Your task to perform on an android device: delete browsing data in the chrome app Image 0: 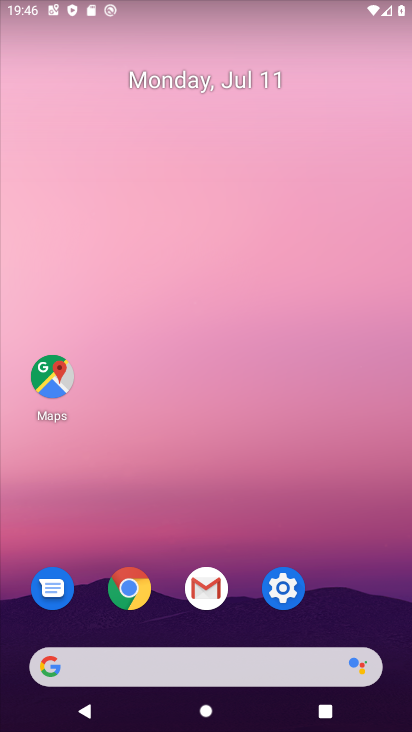
Step 0: click (147, 589)
Your task to perform on an android device: delete browsing data in the chrome app Image 1: 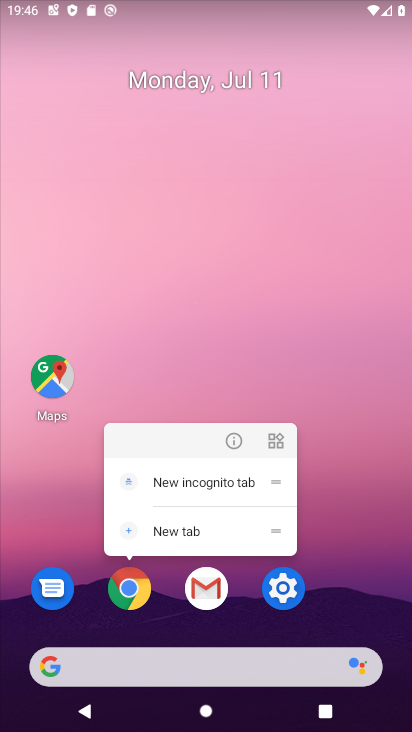
Step 1: click (147, 590)
Your task to perform on an android device: delete browsing data in the chrome app Image 2: 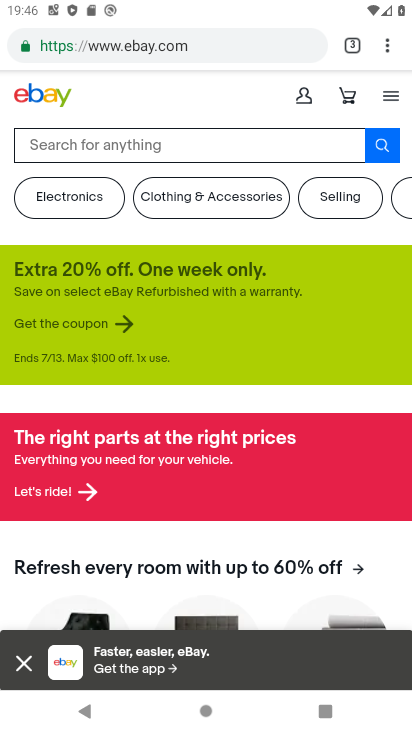
Step 2: click (386, 52)
Your task to perform on an android device: delete browsing data in the chrome app Image 3: 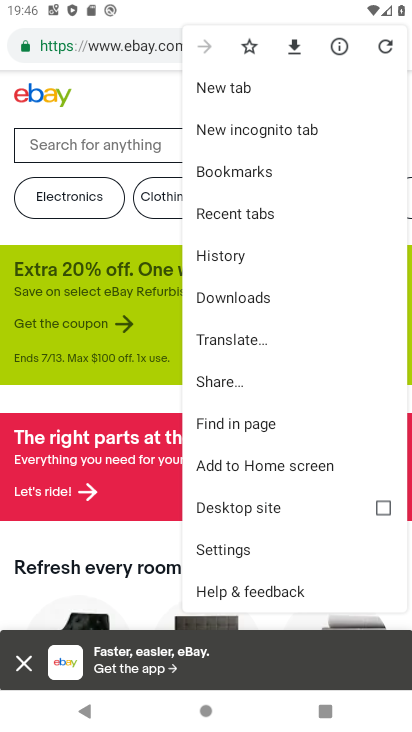
Step 3: click (229, 259)
Your task to perform on an android device: delete browsing data in the chrome app Image 4: 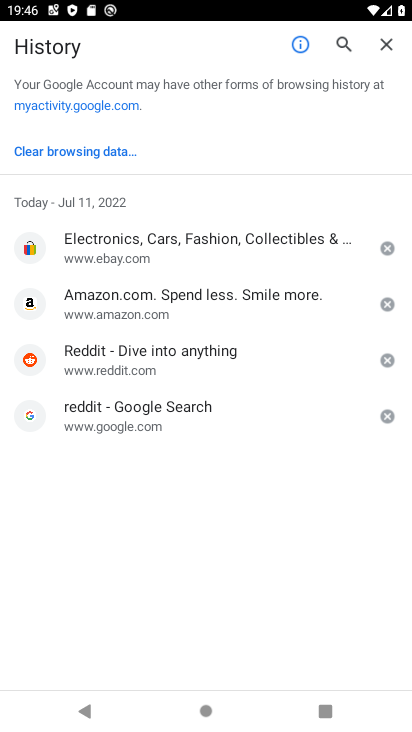
Step 4: click (83, 154)
Your task to perform on an android device: delete browsing data in the chrome app Image 5: 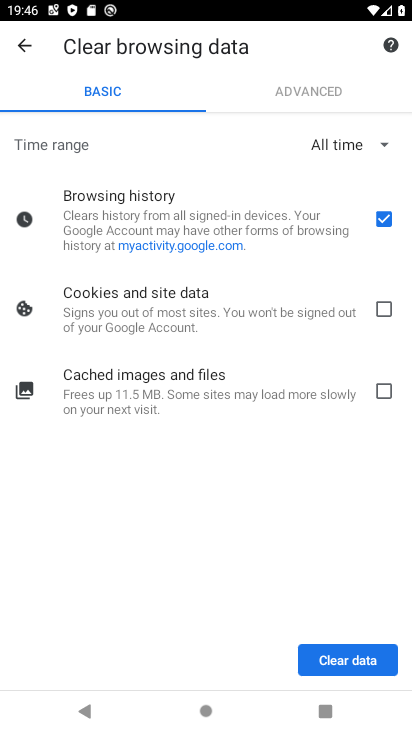
Step 5: click (352, 660)
Your task to perform on an android device: delete browsing data in the chrome app Image 6: 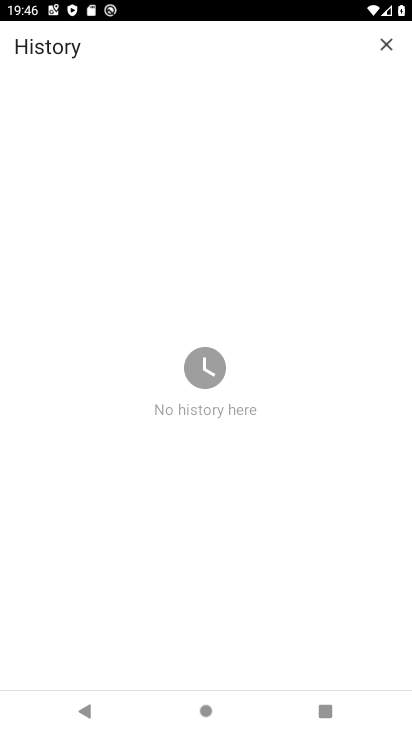
Step 6: task complete